Your task to perform on an android device: Open Google Chrome and click the shortcut for Amazon.com Image 0: 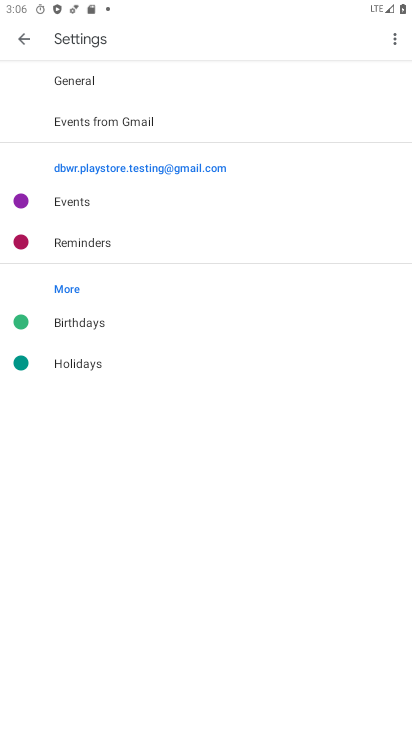
Step 0: press home button
Your task to perform on an android device: Open Google Chrome and click the shortcut for Amazon.com Image 1: 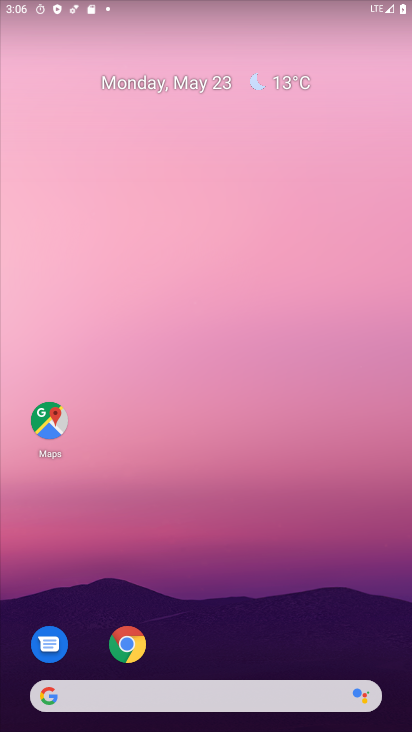
Step 1: drag from (214, 654) to (187, 22)
Your task to perform on an android device: Open Google Chrome and click the shortcut for Amazon.com Image 2: 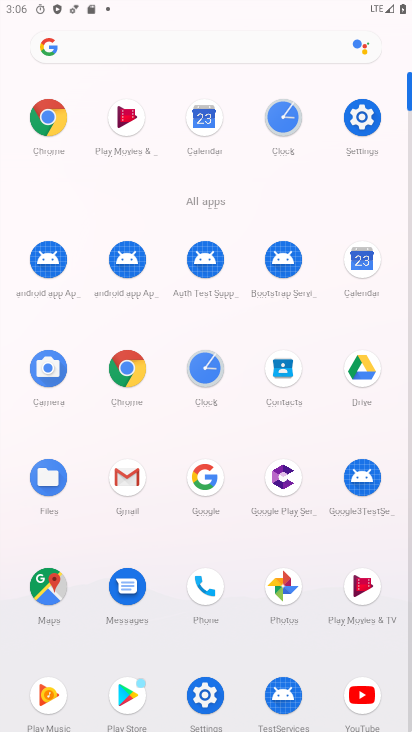
Step 2: click (137, 366)
Your task to perform on an android device: Open Google Chrome and click the shortcut for Amazon.com Image 3: 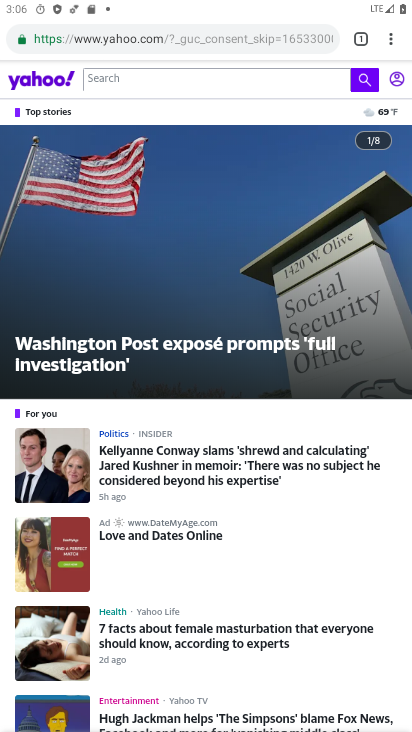
Step 3: click (357, 41)
Your task to perform on an android device: Open Google Chrome and click the shortcut for Amazon.com Image 4: 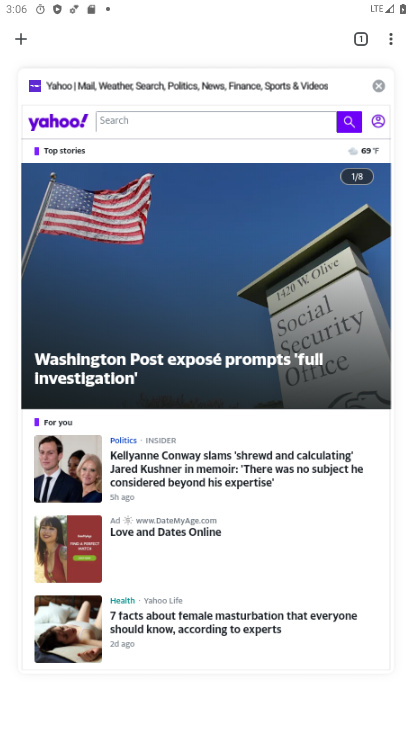
Step 4: click (17, 41)
Your task to perform on an android device: Open Google Chrome and click the shortcut for Amazon.com Image 5: 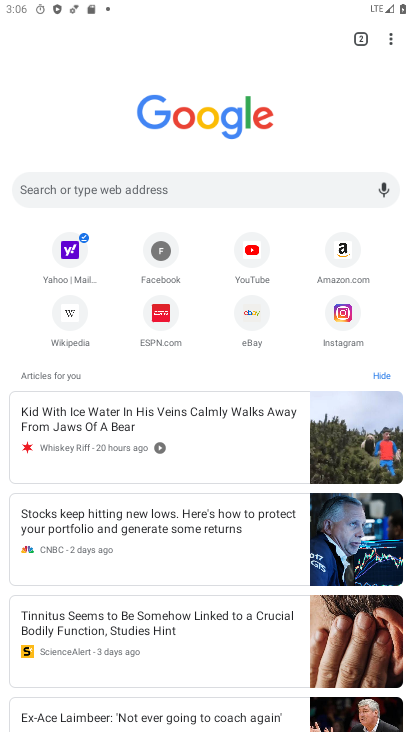
Step 5: click (344, 256)
Your task to perform on an android device: Open Google Chrome and click the shortcut for Amazon.com Image 6: 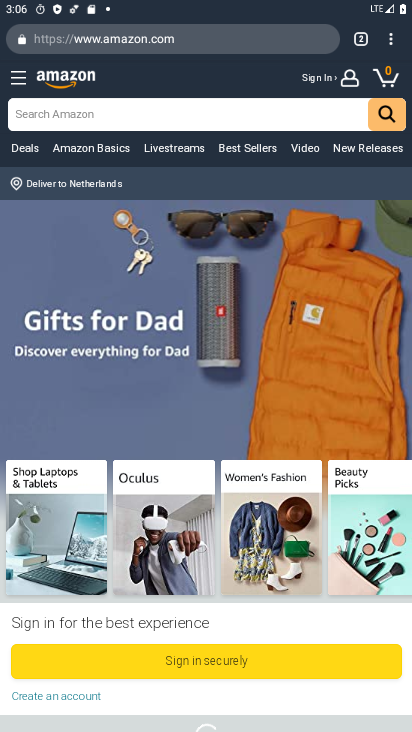
Step 6: task complete